Your task to perform on an android device: Go to Maps Image 0: 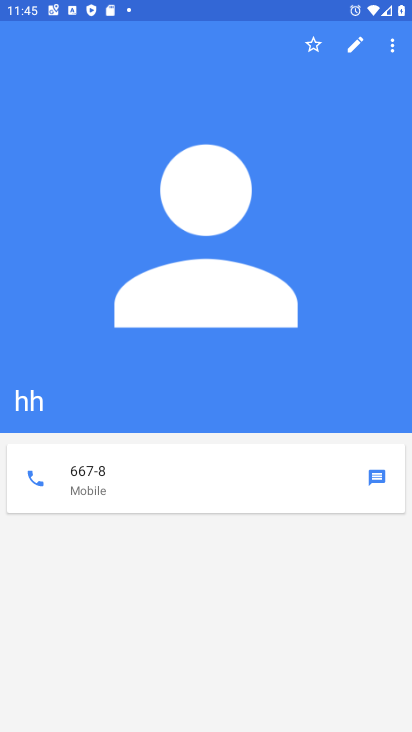
Step 0: press home button
Your task to perform on an android device: Go to Maps Image 1: 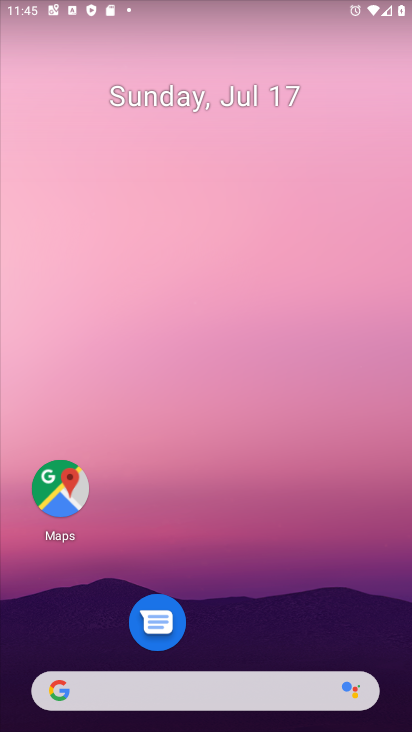
Step 1: click (66, 488)
Your task to perform on an android device: Go to Maps Image 2: 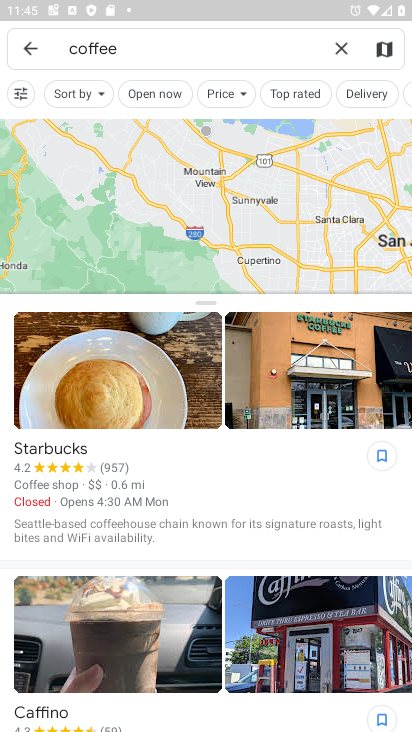
Step 2: task complete